Your task to perform on an android device: turn on data saver in the chrome app Image 0: 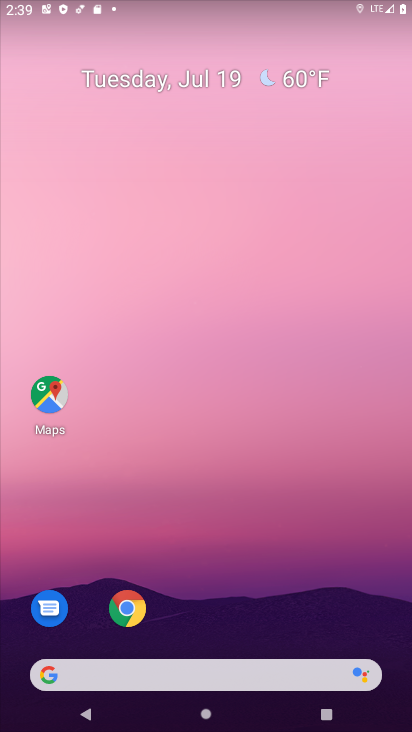
Step 0: drag from (364, 587) to (390, 36)
Your task to perform on an android device: turn on data saver in the chrome app Image 1: 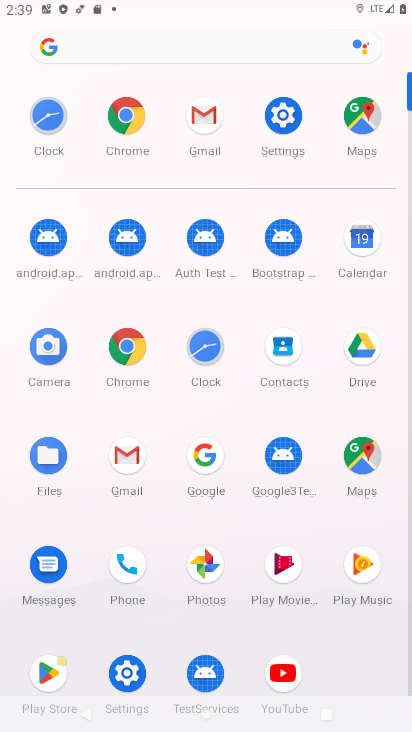
Step 1: click (134, 123)
Your task to perform on an android device: turn on data saver in the chrome app Image 2: 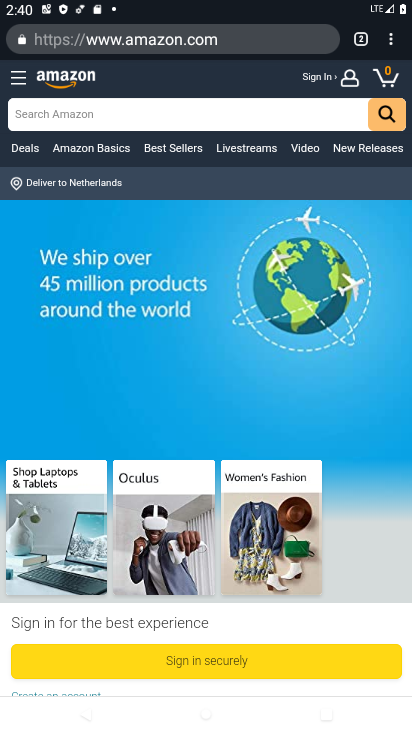
Step 2: drag from (388, 42) to (265, 470)
Your task to perform on an android device: turn on data saver in the chrome app Image 3: 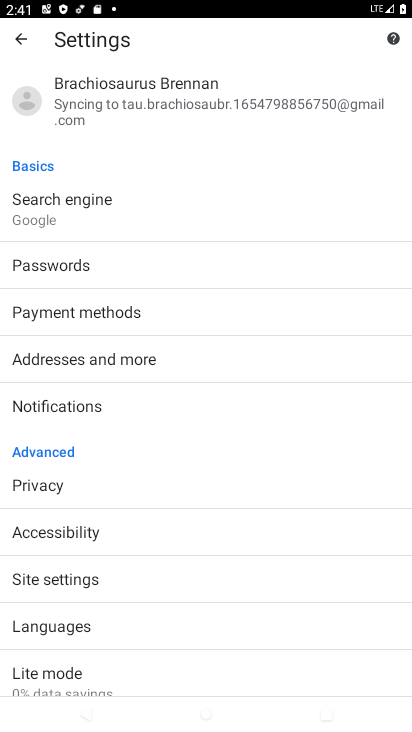
Step 3: drag from (119, 624) to (148, 187)
Your task to perform on an android device: turn on data saver in the chrome app Image 4: 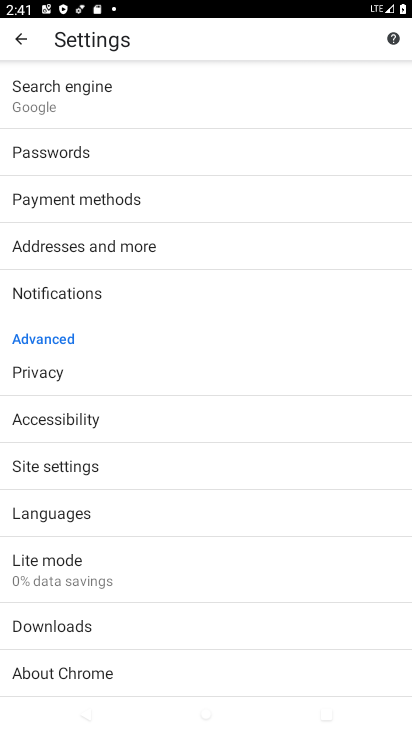
Step 4: click (84, 566)
Your task to perform on an android device: turn on data saver in the chrome app Image 5: 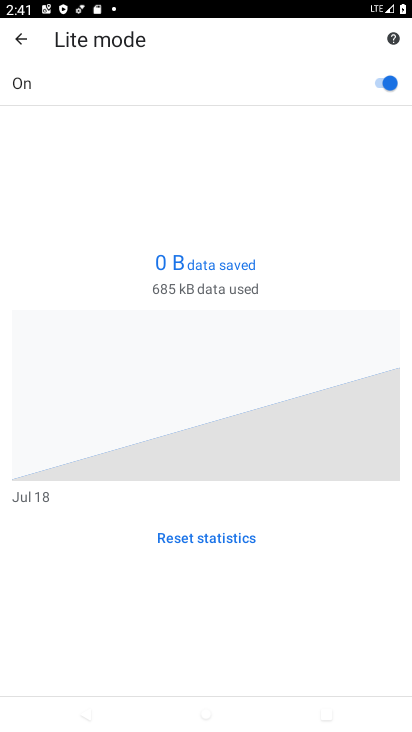
Step 5: task complete